Your task to perform on an android device: Open calendar and show me the first week of next month Image 0: 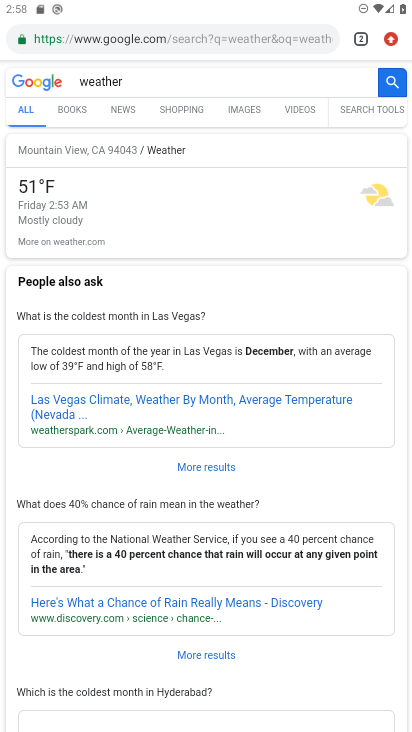
Step 0: press home button
Your task to perform on an android device: Open calendar and show me the first week of next month Image 1: 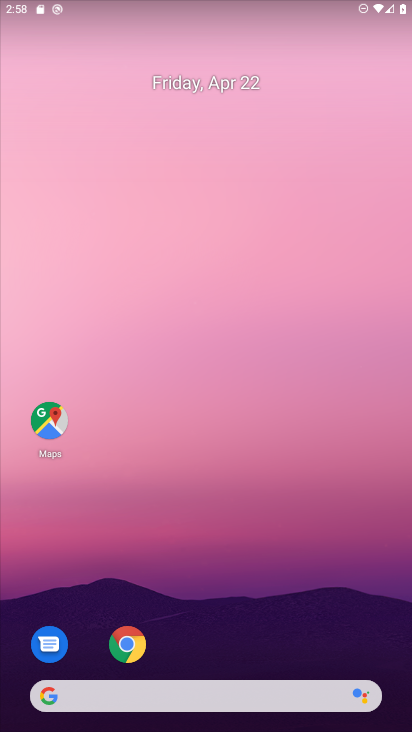
Step 1: drag from (288, 504) to (212, 9)
Your task to perform on an android device: Open calendar and show me the first week of next month Image 2: 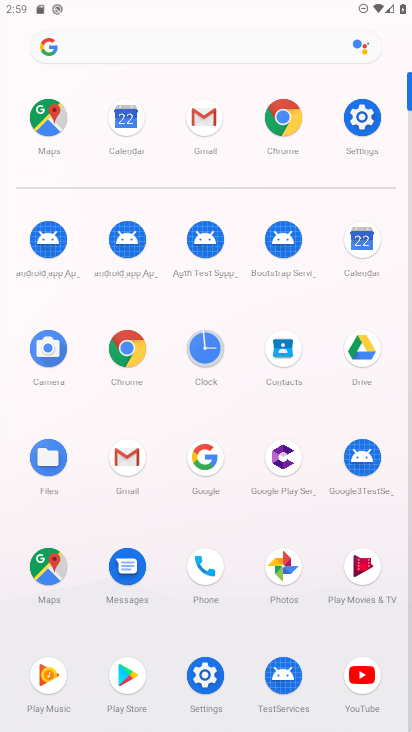
Step 2: click (121, 109)
Your task to perform on an android device: Open calendar and show me the first week of next month Image 3: 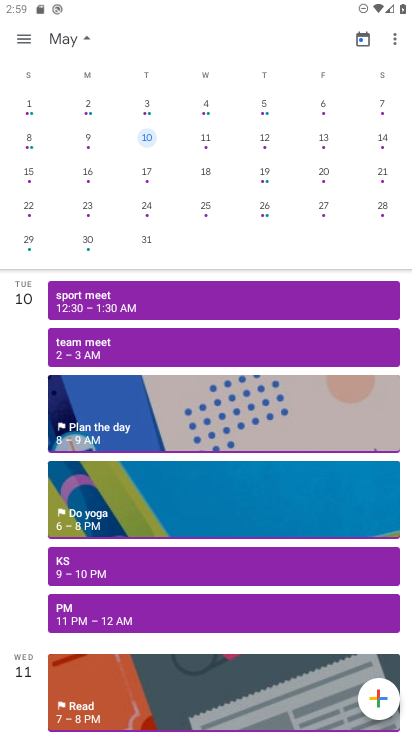
Step 3: click (148, 101)
Your task to perform on an android device: Open calendar and show me the first week of next month Image 4: 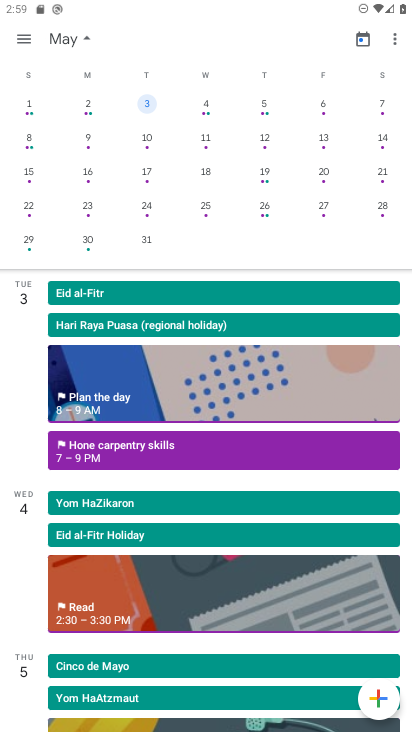
Step 4: task complete